Your task to perform on an android device: Open Wikipedia Image 0: 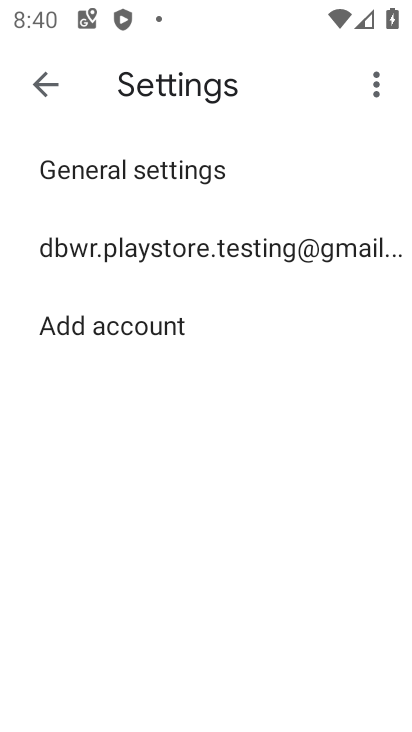
Step 0: press home button
Your task to perform on an android device: Open Wikipedia Image 1: 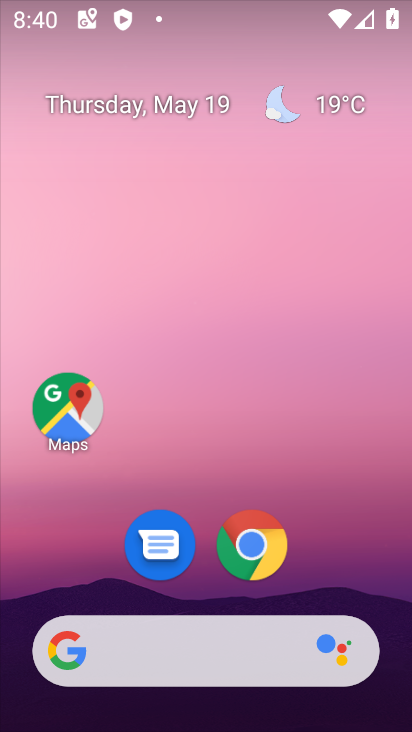
Step 1: click (259, 645)
Your task to perform on an android device: Open Wikipedia Image 2: 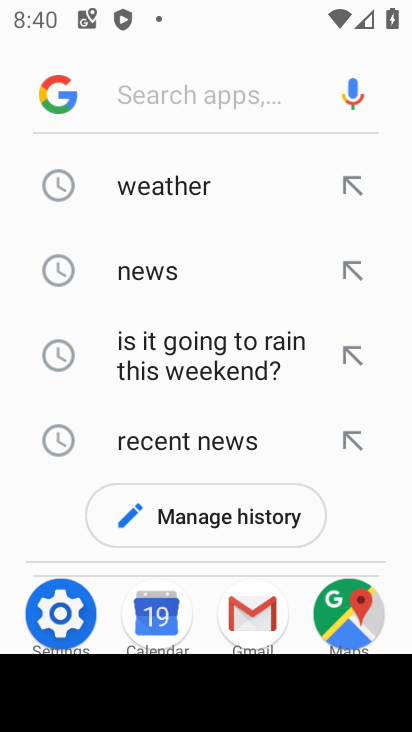
Step 2: type "wikipedia"
Your task to perform on an android device: Open Wikipedia Image 3: 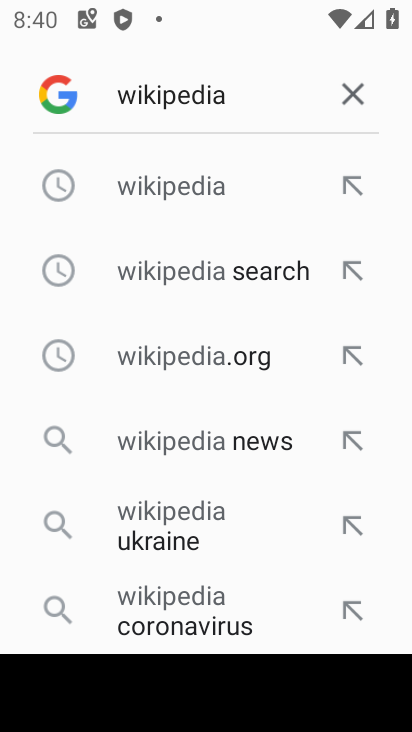
Step 3: click (203, 193)
Your task to perform on an android device: Open Wikipedia Image 4: 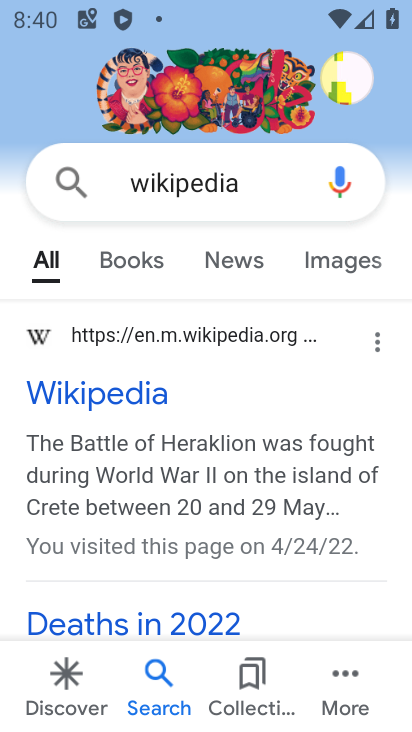
Step 4: click (109, 405)
Your task to perform on an android device: Open Wikipedia Image 5: 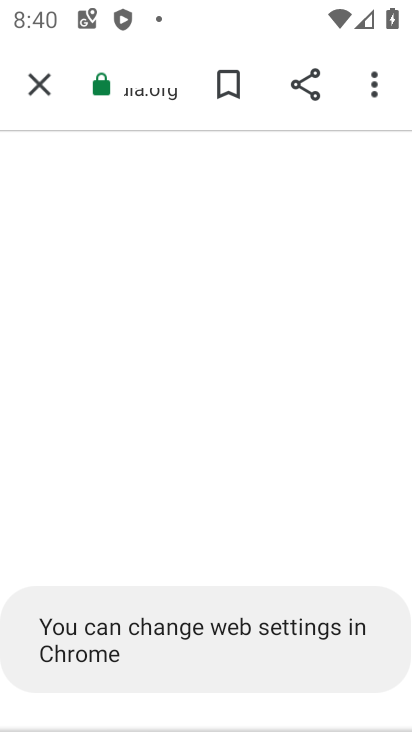
Step 5: task complete